Your task to perform on an android device: change text size in settings app Image 0: 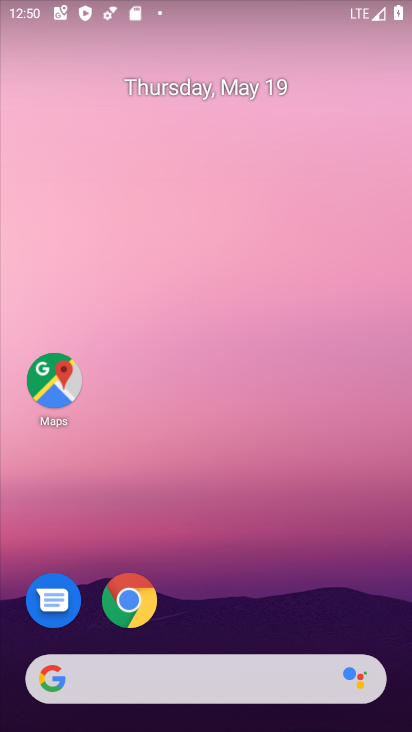
Step 0: drag from (269, 559) to (243, 112)
Your task to perform on an android device: change text size in settings app Image 1: 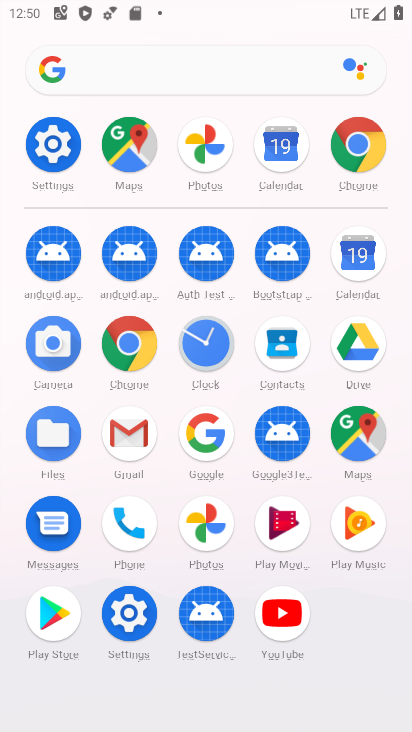
Step 1: click (62, 152)
Your task to perform on an android device: change text size in settings app Image 2: 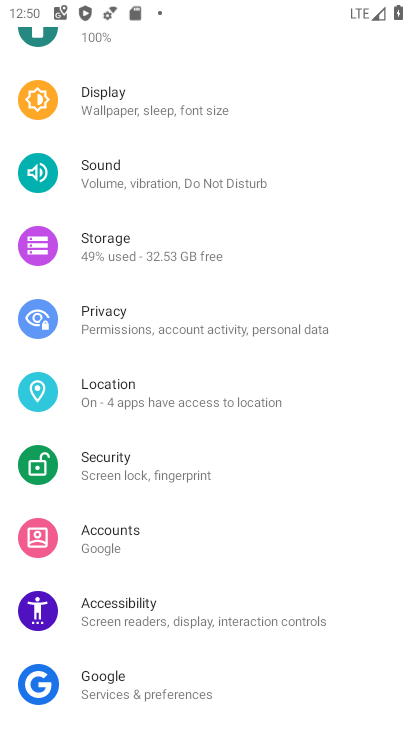
Step 2: click (98, 93)
Your task to perform on an android device: change text size in settings app Image 3: 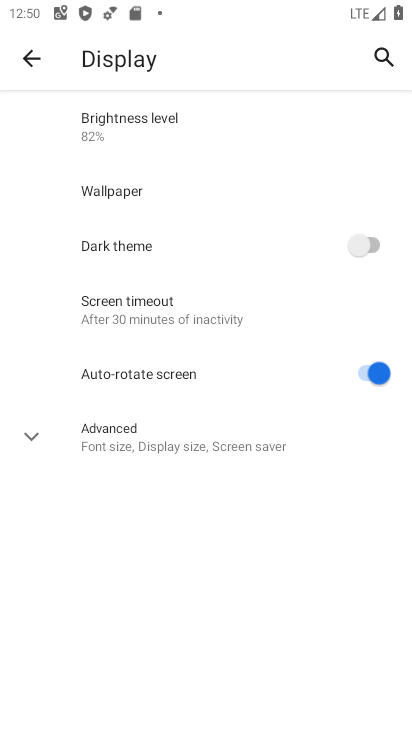
Step 3: click (112, 432)
Your task to perform on an android device: change text size in settings app Image 4: 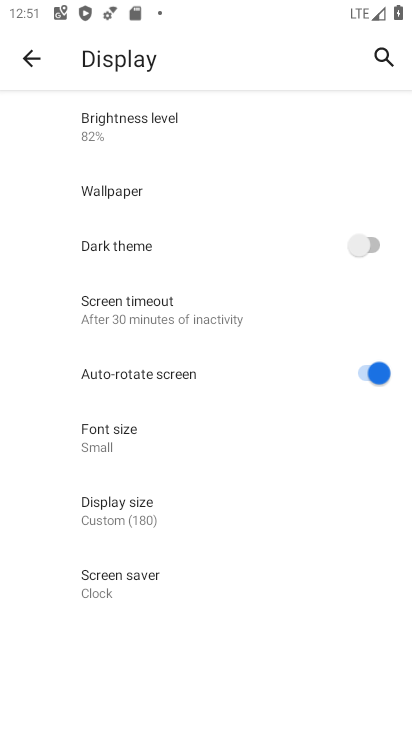
Step 4: click (113, 436)
Your task to perform on an android device: change text size in settings app Image 5: 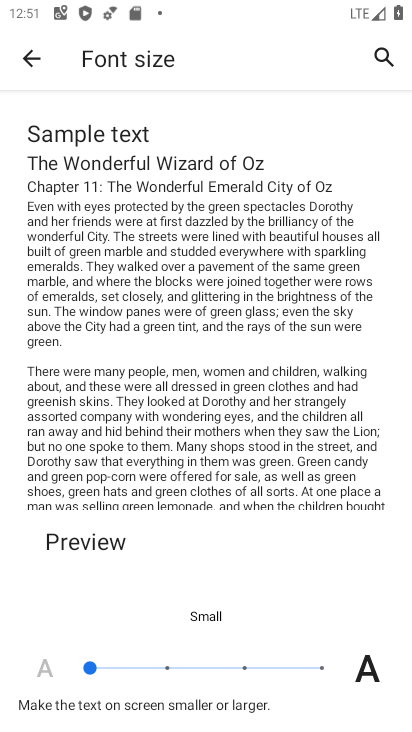
Step 5: click (147, 659)
Your task to perform on an android device: change text size in settings app Image 6: 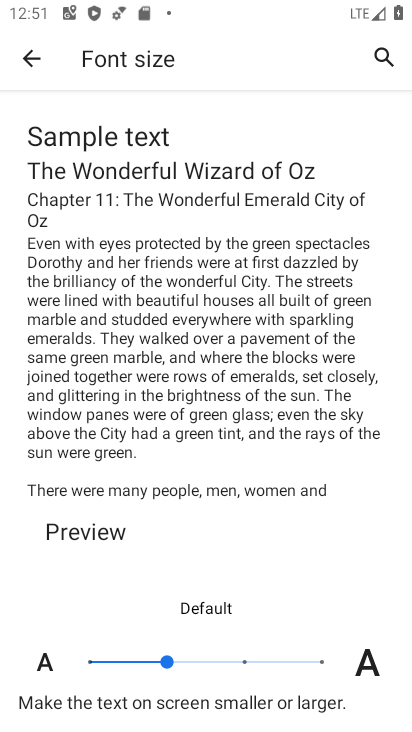
Step 6: task complete